Your task to perform on an android device: Open calendar and show me the second week of next month Image 0: 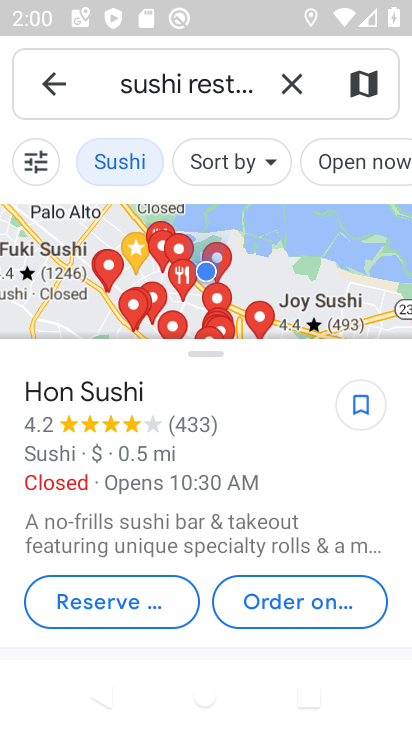
Step 0: press back button
Your task to perform on an android device: Open calendar and show me the second week of next month Image 1: 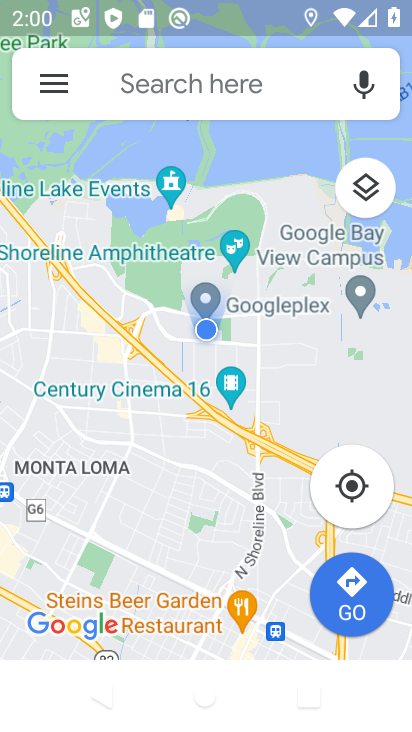
Step 1: press back button
Your task to perform on an android device: Open calendar and show me the second week of next month Image 2: 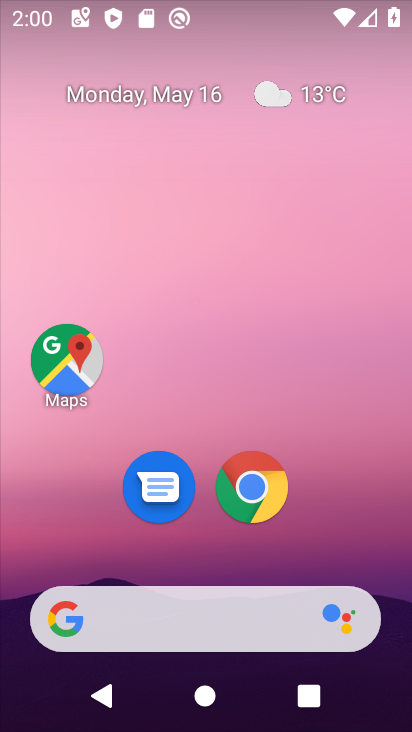
Step 2: drag from (330, 528) to (268, 37)
Your task to perform on an android device: Open calendar and show me the second week of next month Image 3: 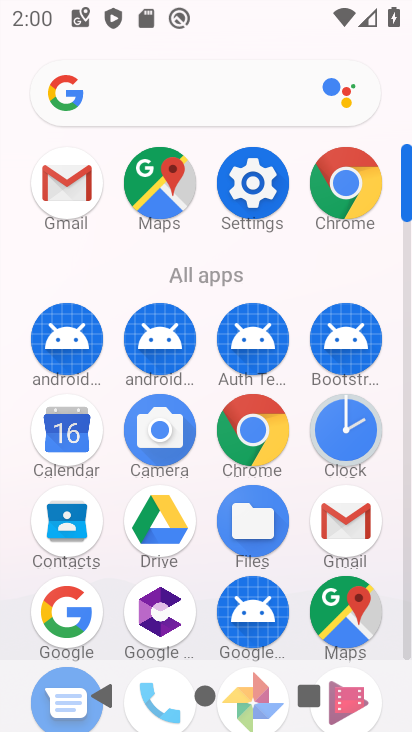
Step 3: drag from (8, 585) to (0, 283)
Your task to perform on an android device: Open calendar and show me the second week of next month Image 4: 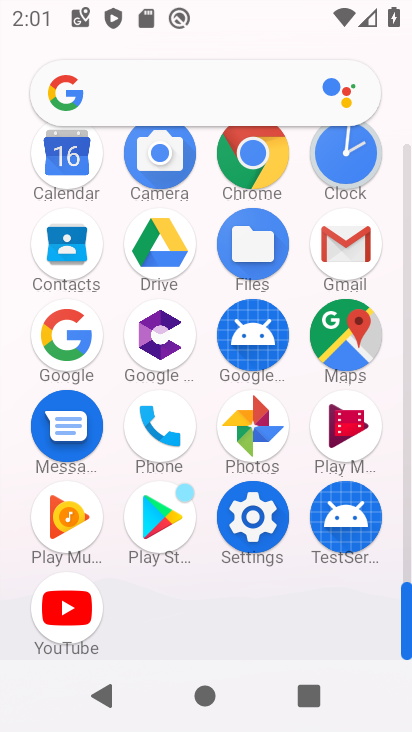
Step 4: click (76, 139)
Your task to perform on an android device: Open calendar and show me the second week of next month Image 5: 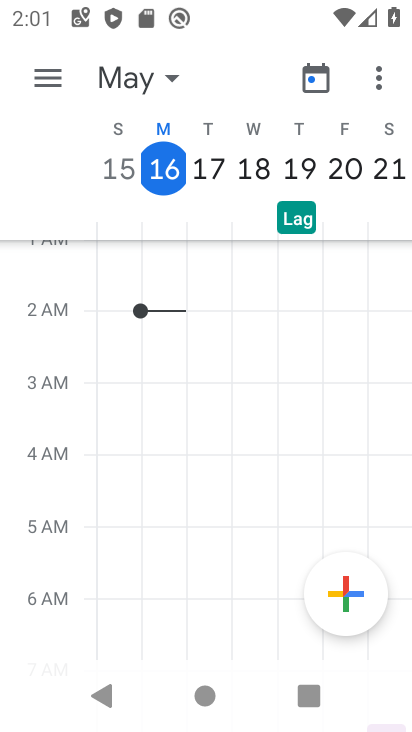
Step 5: click (126, 79)
Your task to perform on an android device: Open calendar and show me the second week of next month Image 6: 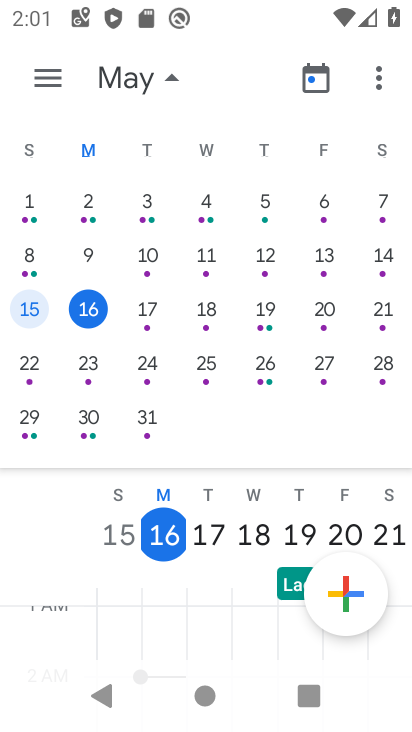
Step 6: drag from (374, 267) to (23, 272)
Your task to perform on an android device: Open calendar and show me the second week of next month Image 7: 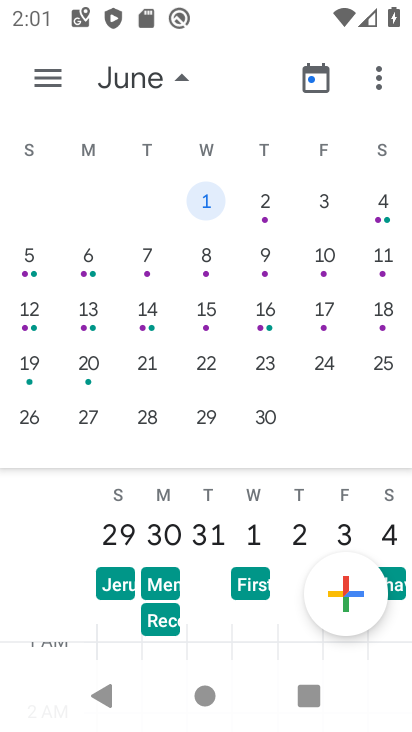
Step 7: click (29, 259)
Your task to perform on an android device: Open calendar and show me the second week of next month Image 8: 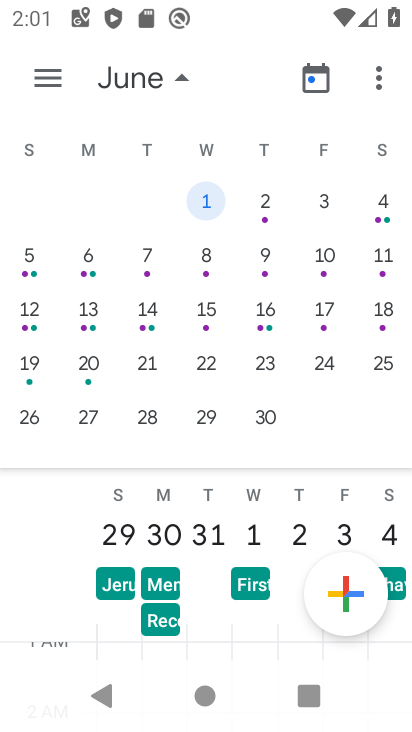
Step 8: click (30, 259)
Your task to perform on an android device: Open calendar and show me the second week of next month Image 9: 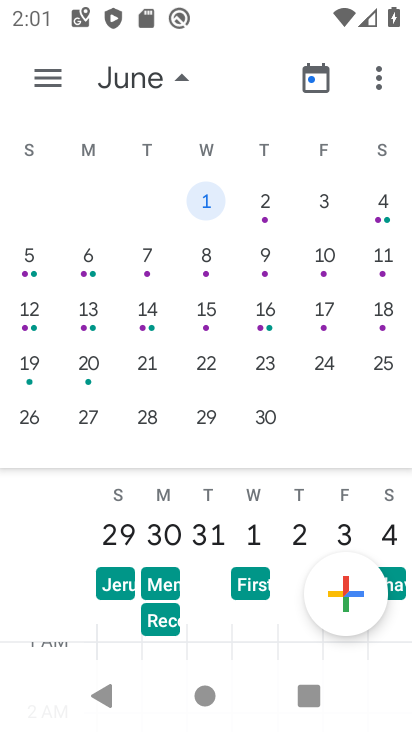
Step 9: click (32, 258)
Your task to perform on an android device: Open calendar and show me the second week of next month Image 10: 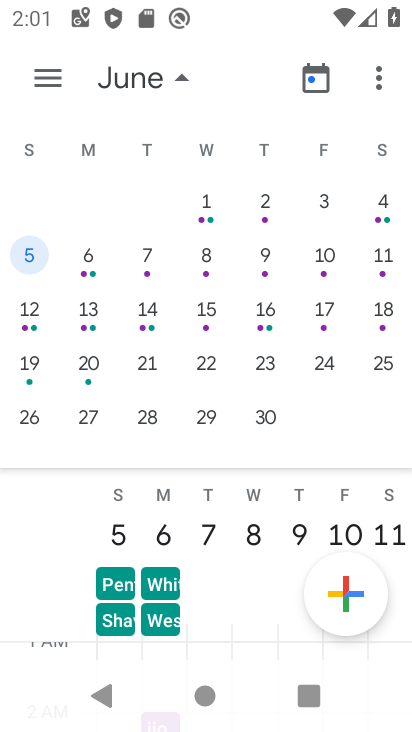
Step 10: click (43, 65)
Your task to perform on an android device: Open calendar and show me the second week of next month Image 11: 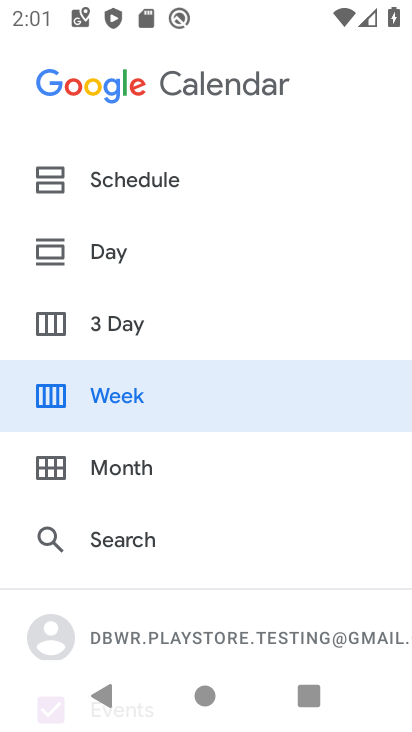
Step 11: click (155, 401)
Your task to perform on an android device: Open calendar and show me the second week of next month Image 12: 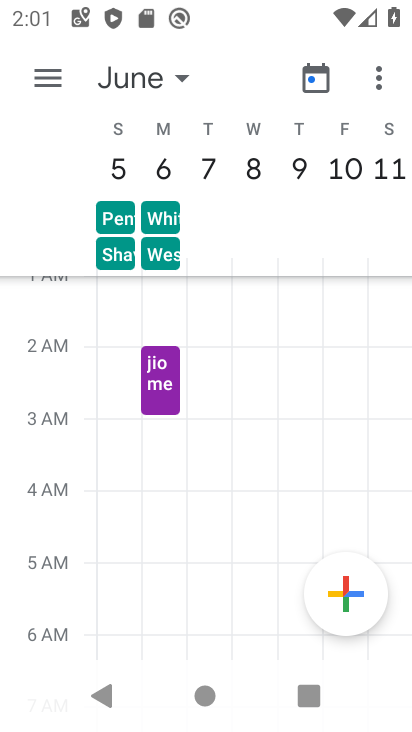
Step 12: task complete